Your task to perform on an android device: Open the Play Movies app and select the watchlist tab. Image 0: 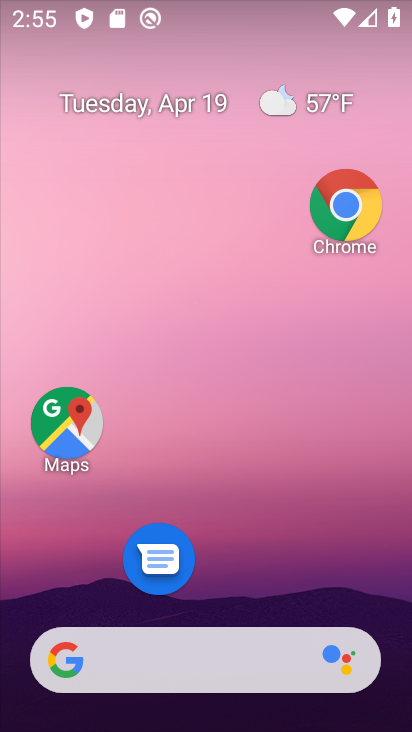
Step 0: drag from (221, 455) to (276, 132)
Your task to perform on an android device: Open the Play Movies app and select the watchlist tab. Image 1: 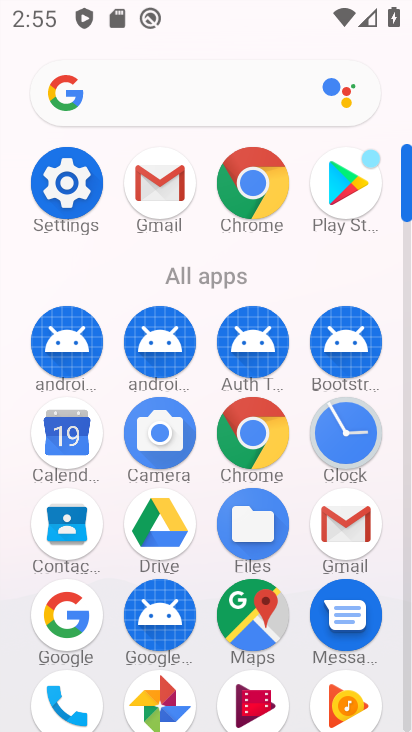
Step 1: drag from (204, 607) to (283, 364)
Your task to perform on an android device: Open the Play Movies app and select the watchlist tab. Image 2: 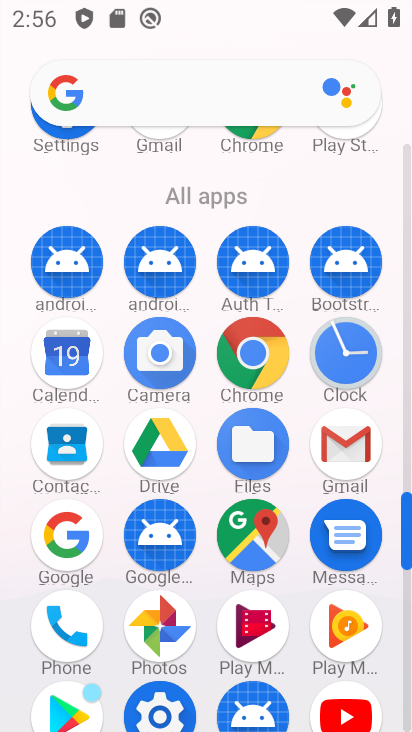
Step 2: drag from (215, 675) to (211, 313)
Your task to perform on an android device: Open the Play Movies app and select the watchlist tab. Image 3: 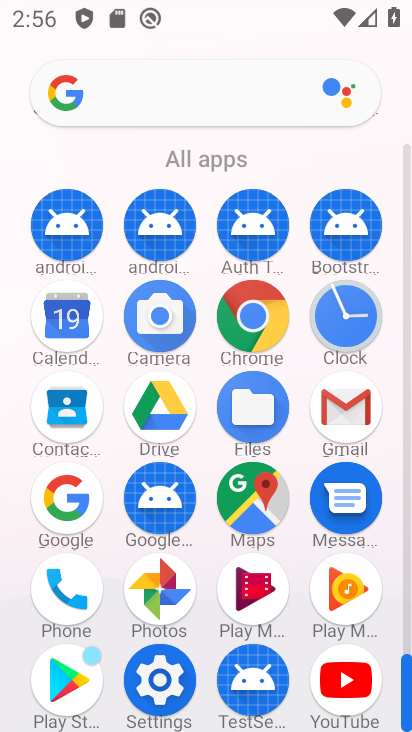
Step 3: click (263, 595)
Your task to perform on an android device: Open the Play Movies app and select the watchlist tab. Image 4: 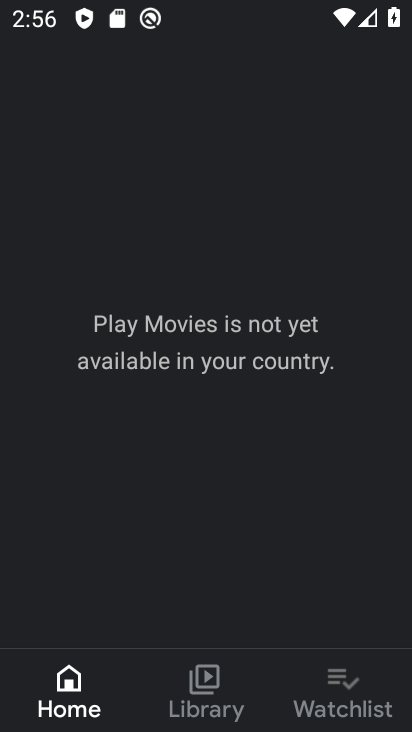
Step 4: click (349, 711)
Your task to perform on an android device: Open the Play Movies app and select the watchlist tab. Image 5: 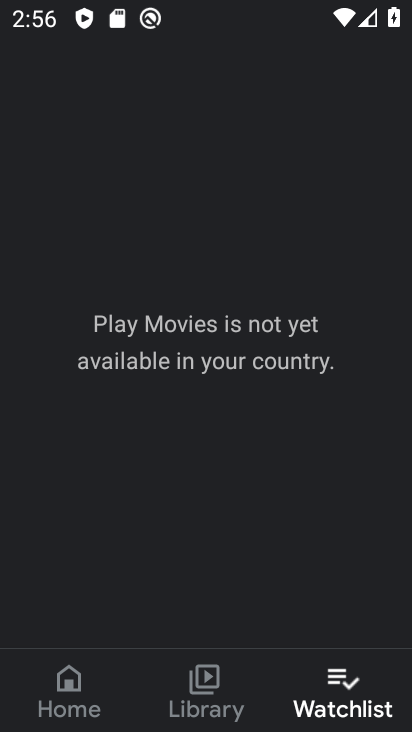
Step 5: task complete